Your task to perform on an android device: Go to Android settings Image 0: 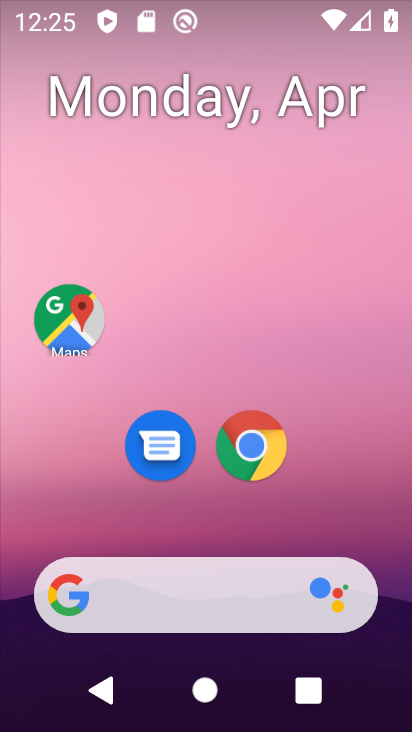
Step 0: drag from (366, 508) to (361, 86)
Your task to perform on an android device: Go to Android settings Image 1: 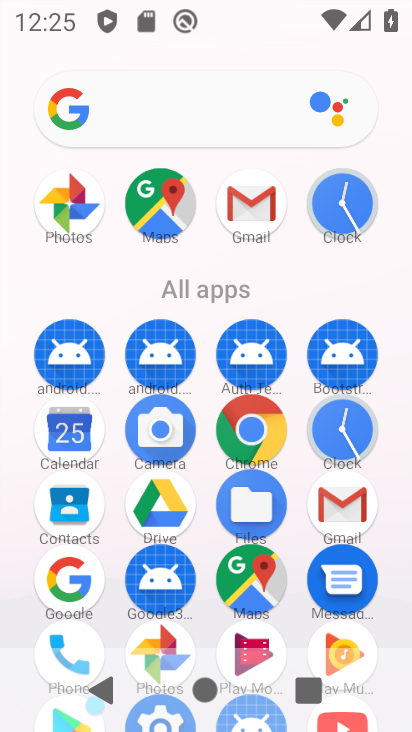
Step 1: drag from (394, 531) to (394, 201)
Your task to perform on an android device: Go to Android settings Image 2: 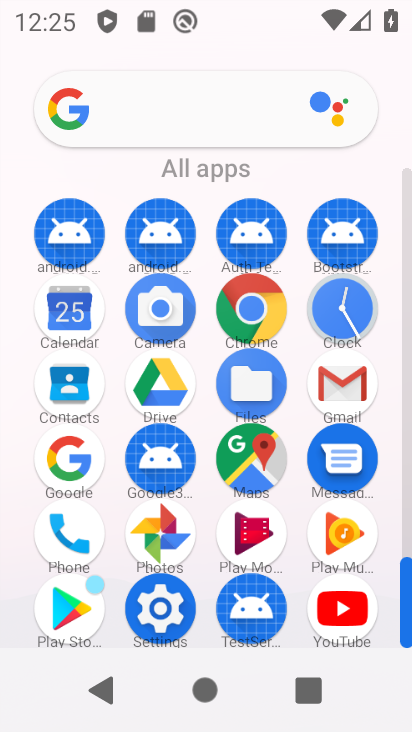
Step 2: click (166, 611)
Your task to perform on an android device: Go to Android settings Image 3: 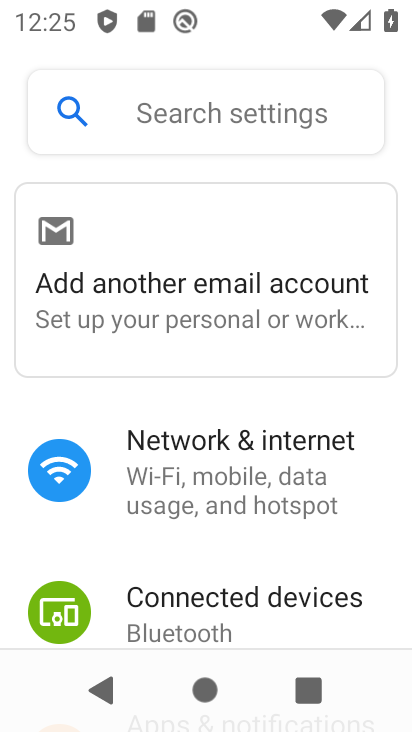
Step 3: drag from (379, 555) to (387, 372)
Your task to perform on an android device: Go to Android settings Image 4: 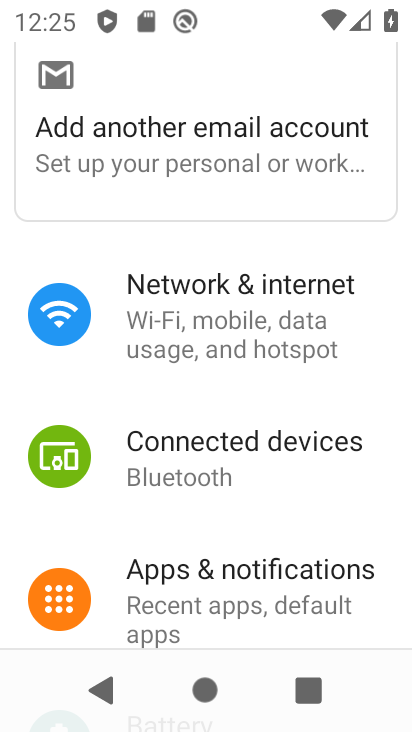
Step 4: drag from (387, 614) to (386, 416)
Your task to perform on an android device: Go to Android settings Image 5: 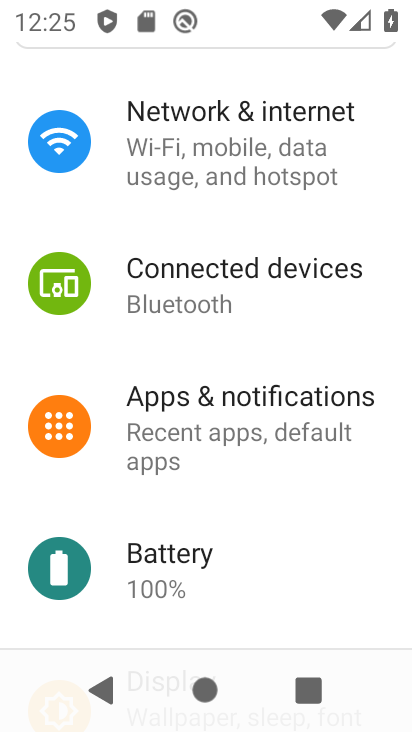
Step 5: drag from (384, 575) to (370, 329)
Your task to perform on an android device: Go to Android settings Image 6: 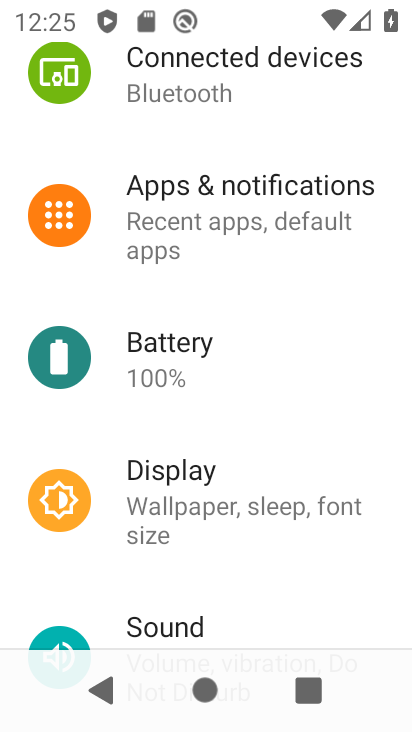
Step 6: drag from (370, 502) to (366, 299)
Your task to perform on an android device: Go to Android settings Image 7: 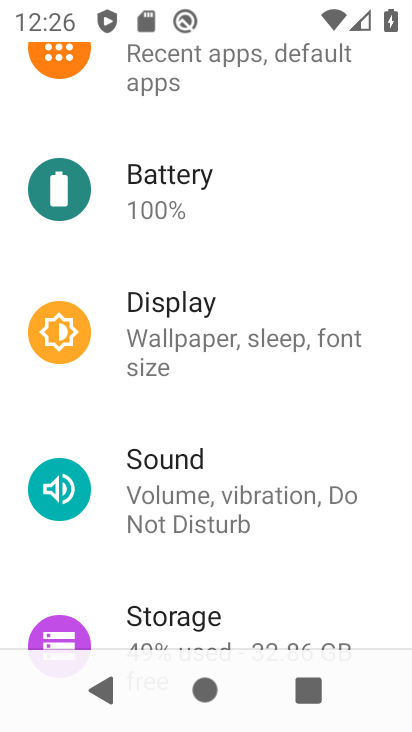
Step 7: drag from (375, 569) to (376, 361)
Your task to perform on an android device: Go to Android settings Image 8: 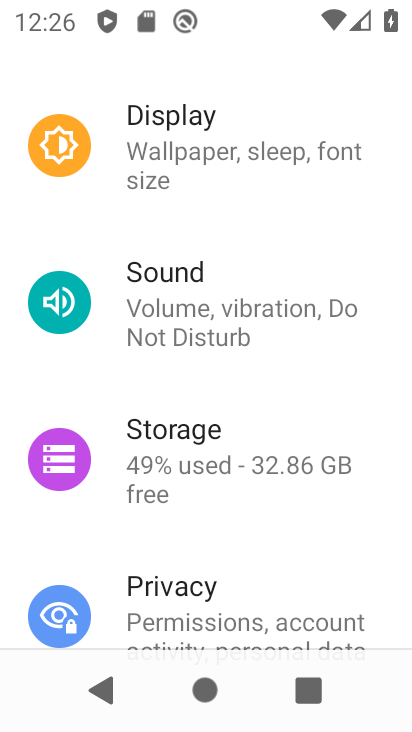
Step 8: drag from (384, 575) to (383, 268)
Your task to perform on an android device: Go to Android settings Image 9: 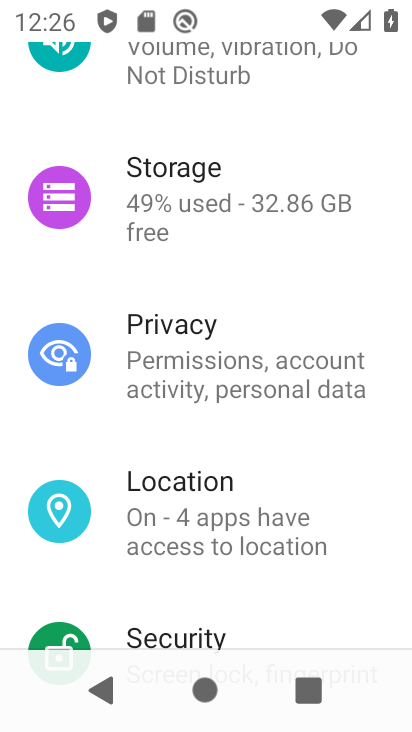
Step 9: drag from (375, 489) to (370, 243)
Your task to perform on an android device: Go to Android settings Image 10: 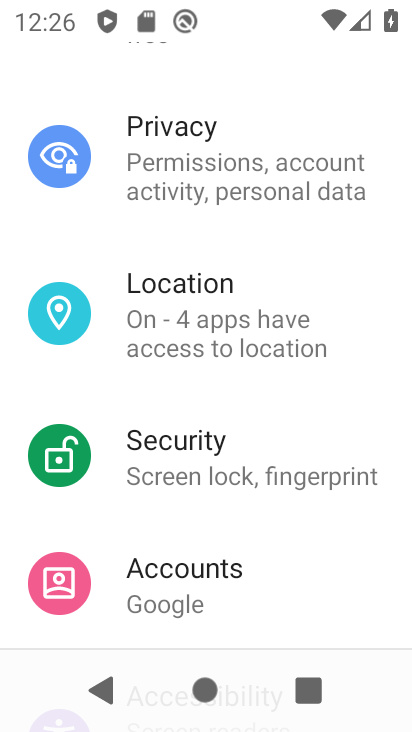
Step 10: drag from (355, 578) to (349, 330)
Your task to perform on an android device: Go to Android settings Image 11: 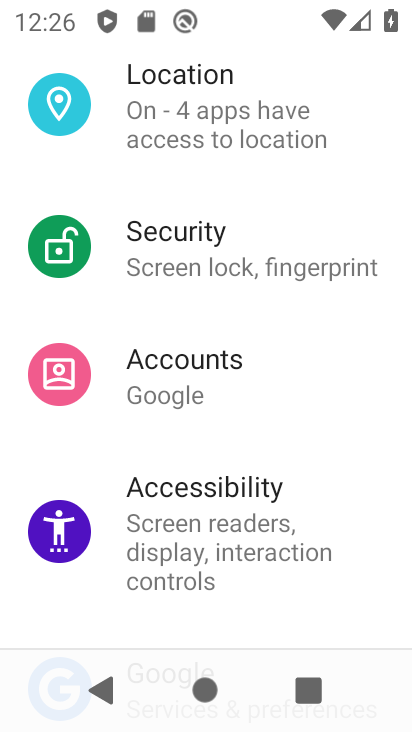
Step 11: drag from (360, 607) to (350, 350)
Your task to perform on an android device: Go to Android settings Image 12: 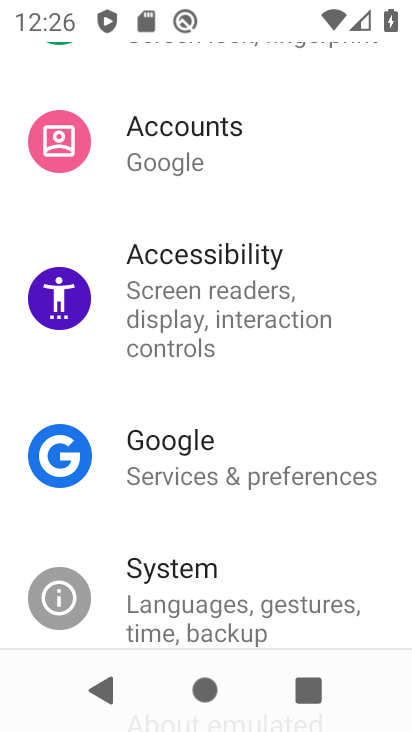
Step 12: drag from (375, 516) to (386, 382)
Your task to perform on an android device: Go to Android settings Image 13: 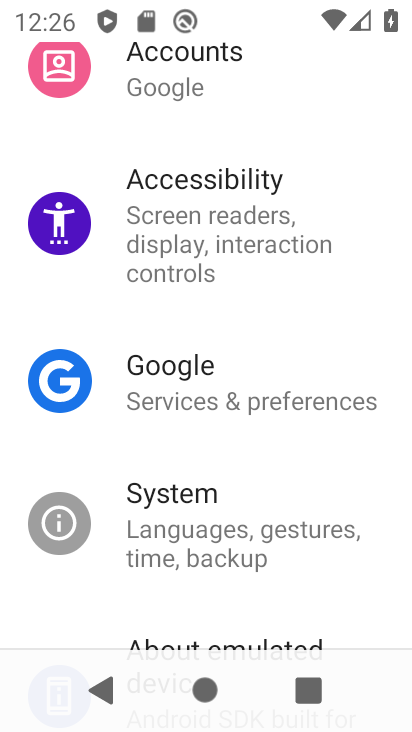
Step 13: click (261, 533)
Your task to perform on an android device: Go to Android settings Image 14: 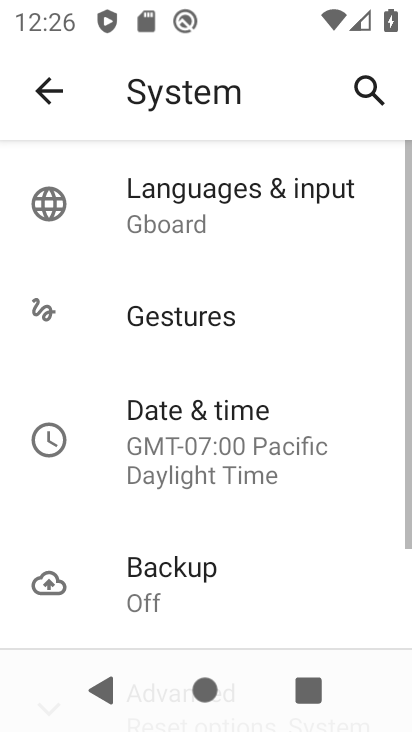
Step 14: drag from (376, 535) to (366, 237)
Your task to perform on an android device: Go to Android settings Image 15: 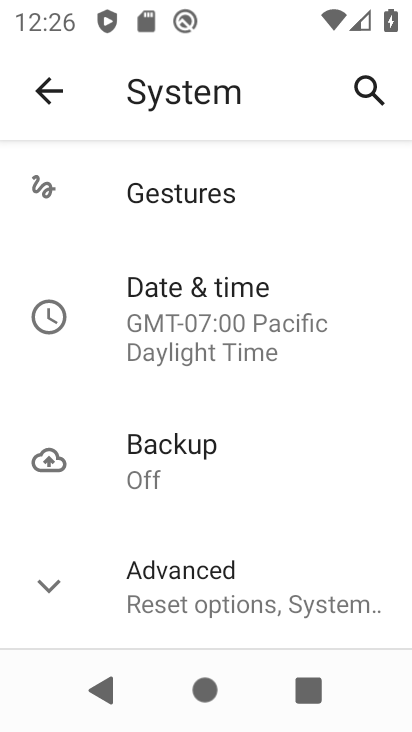
Step 15: click (276, 595)
Your task to perform on an android device: Go to Android settings Image 16: 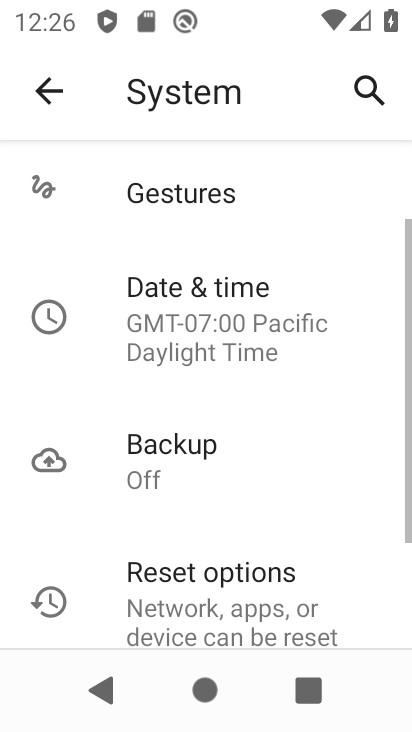
Step 16: task complete